Your task to perform on an android device: install app "DoorDash - Dasher" Image 0: 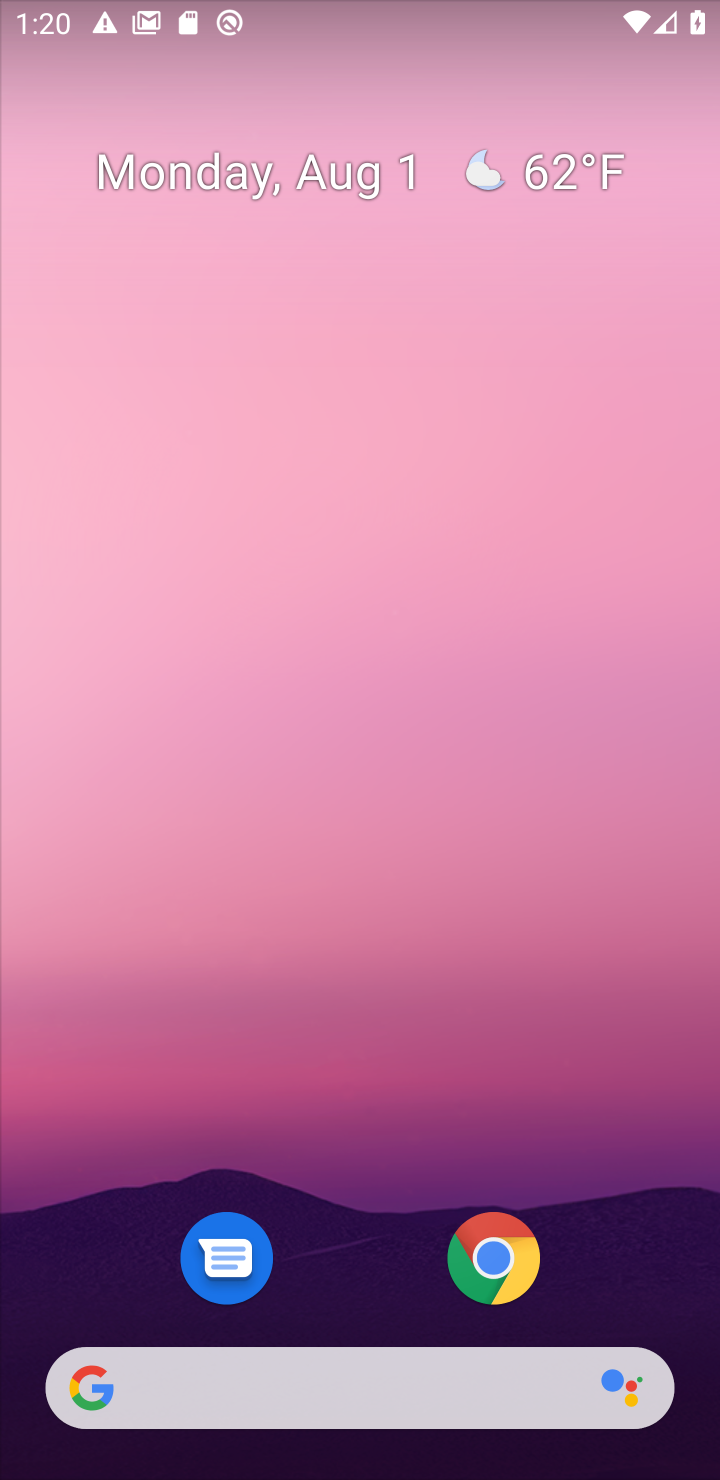
Step 0: drag from (183, 1031) to (396, 14)
Your task to perform on an android device: install app "DoorDash - Dasher" Image 1: 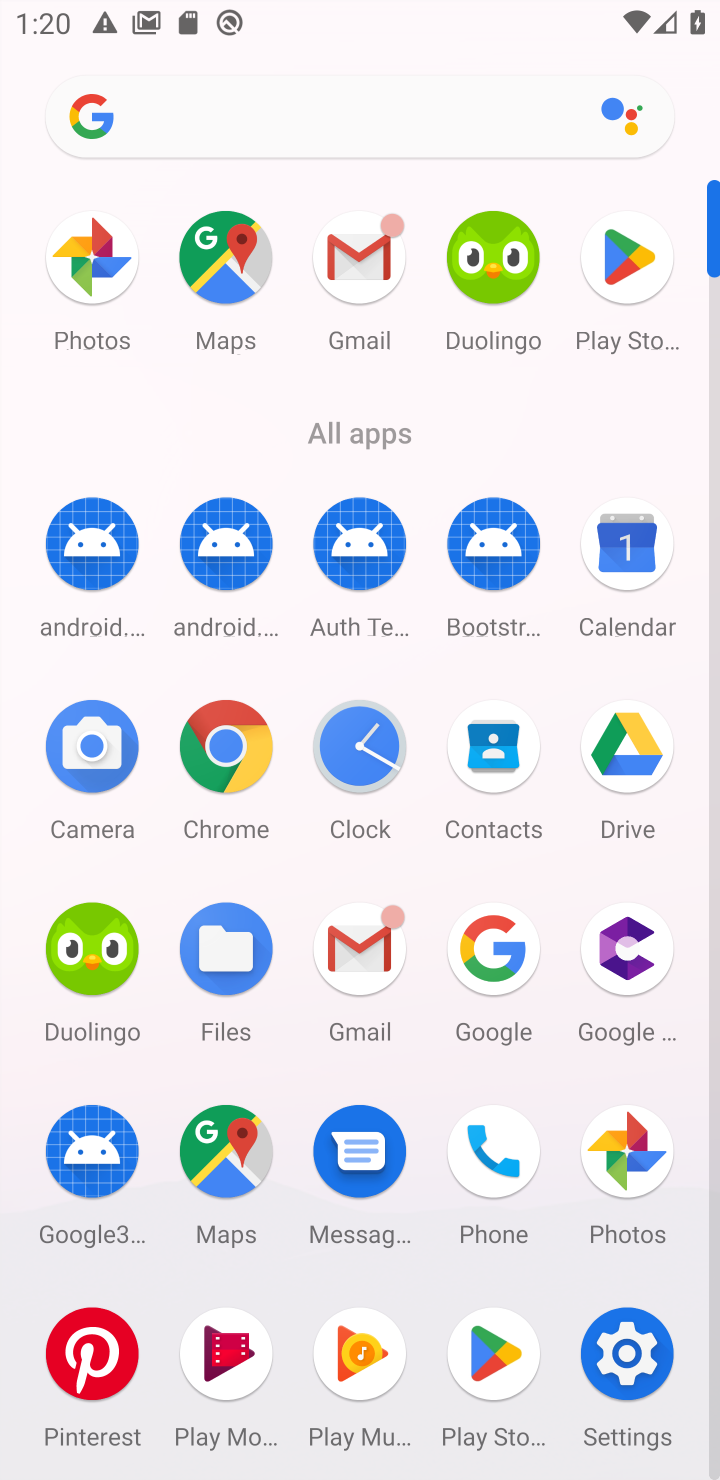
Step 1: click (621, 253)
Your task to perform on an android device: install app "DoorDash - Dasher" Image 2: 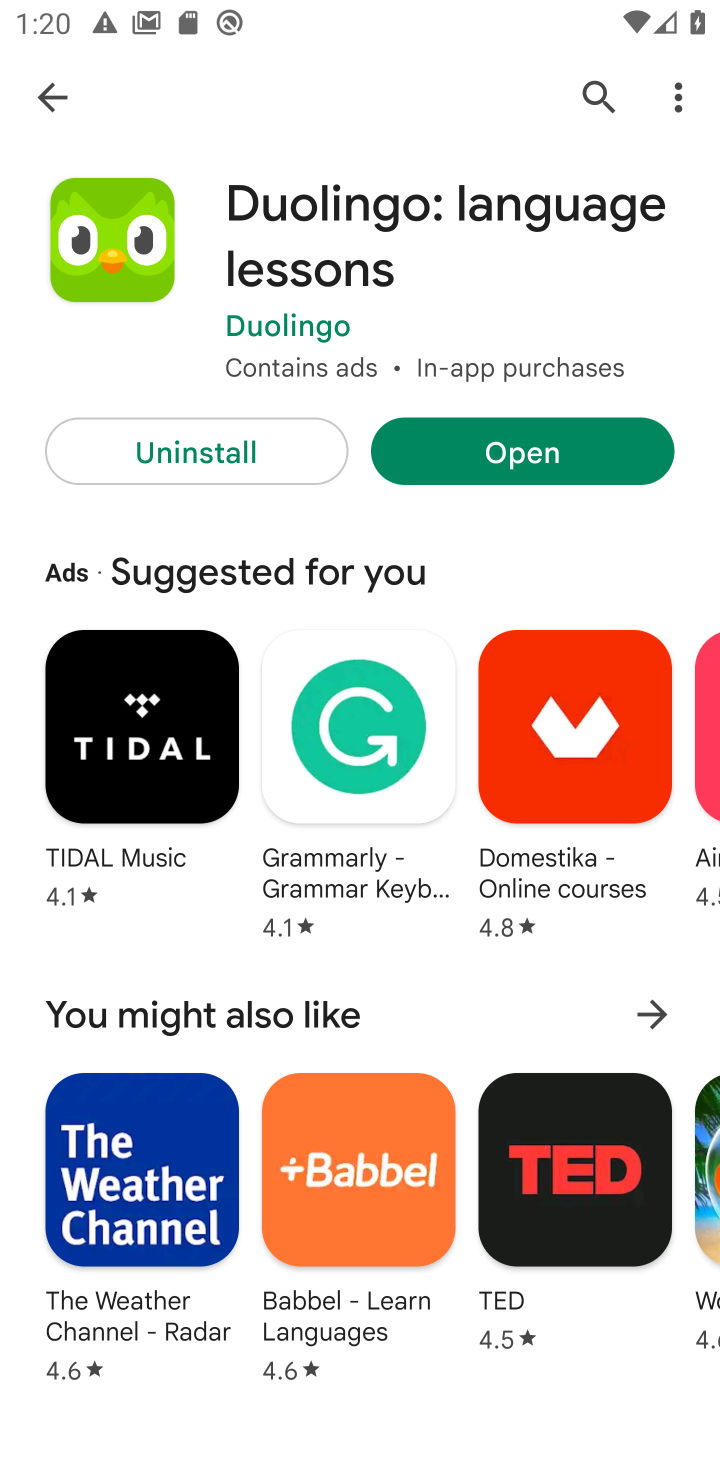
Step 2: click (603, 112)
Your task to perform on an android device: install app "DoorDash - Dasher" Image 3: 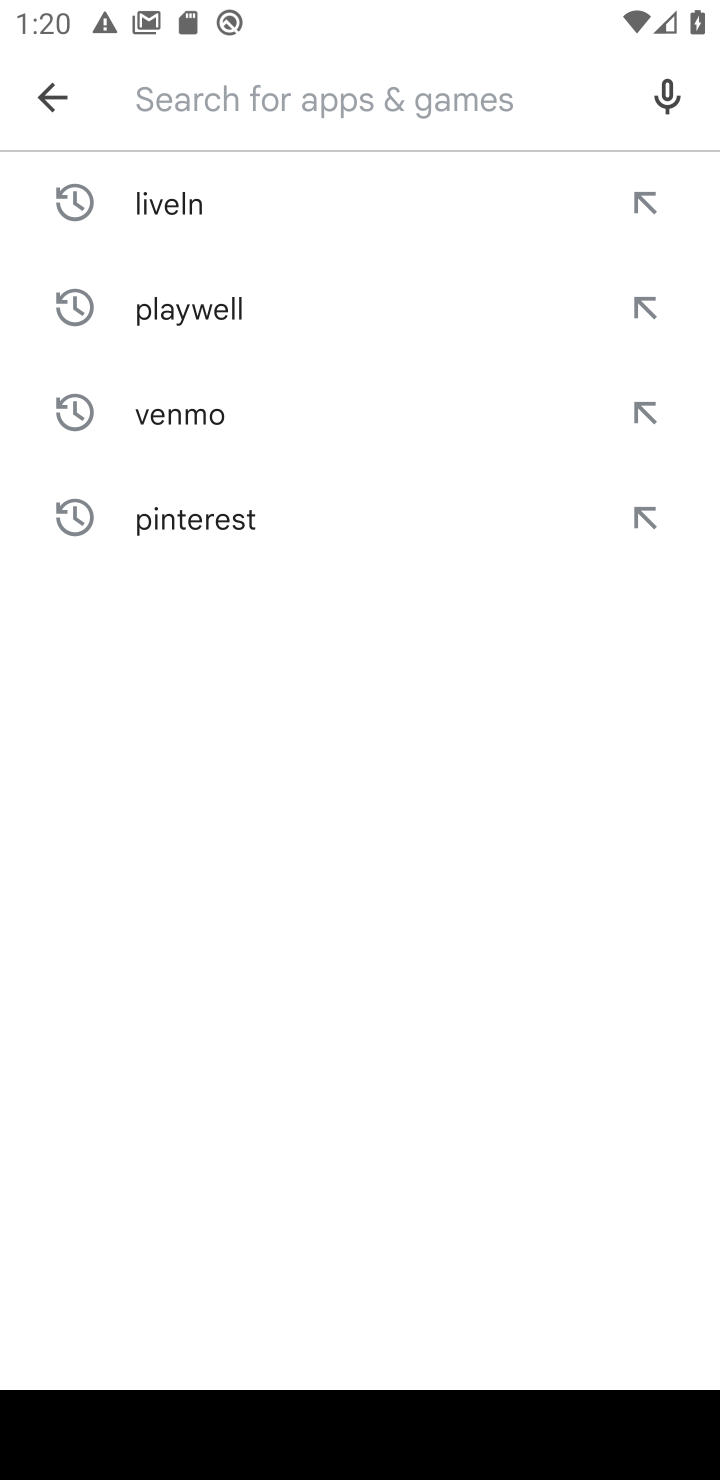
Step 3: click (285, 68)
Your task to perform on an android device: install app "DoorDash - Dasher" Image 4: 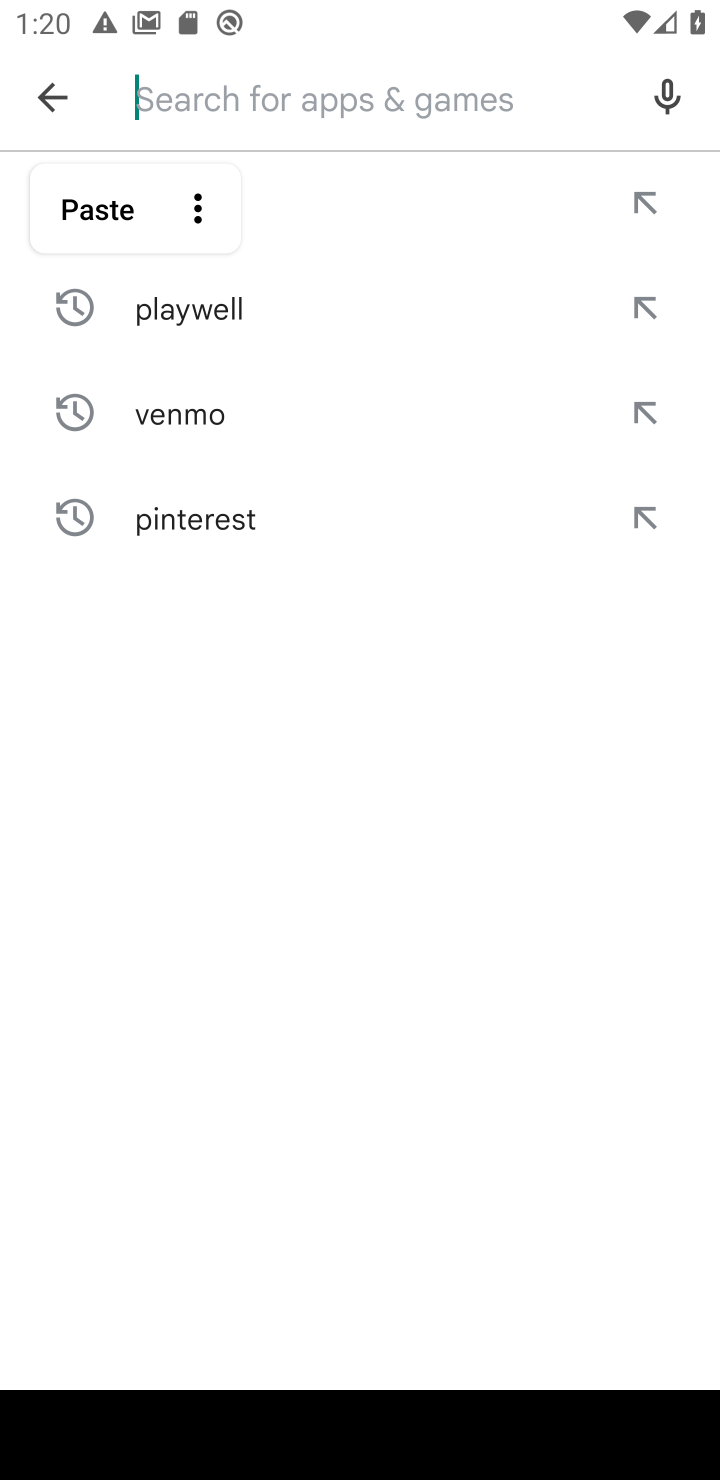
Step 4: type "DoorDash - Dasher"
Your task to perform on an android device: install app "DoorDash - Dasher" Image 5: 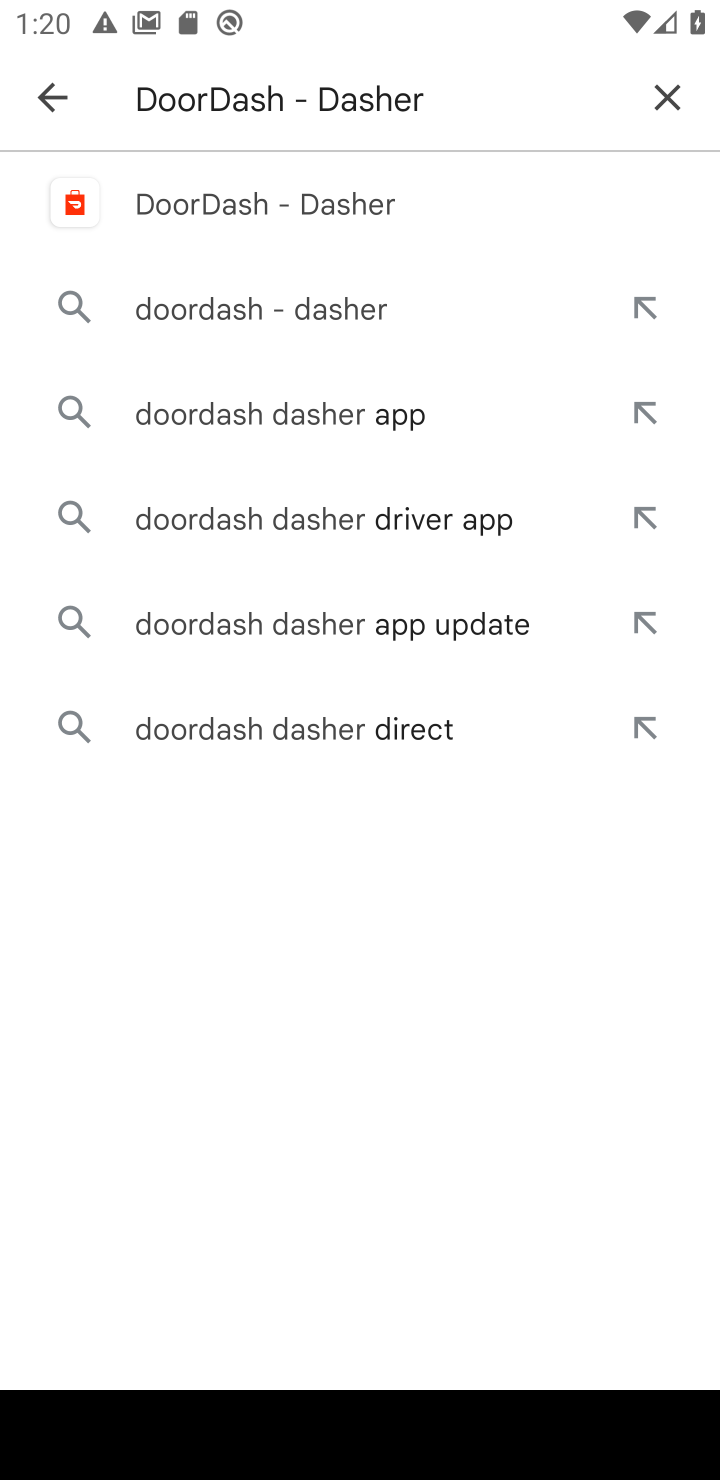
Step 5: click (245, 203)
Your task to perform on an android device: install app "DoorDash - Dasher" Image 6: 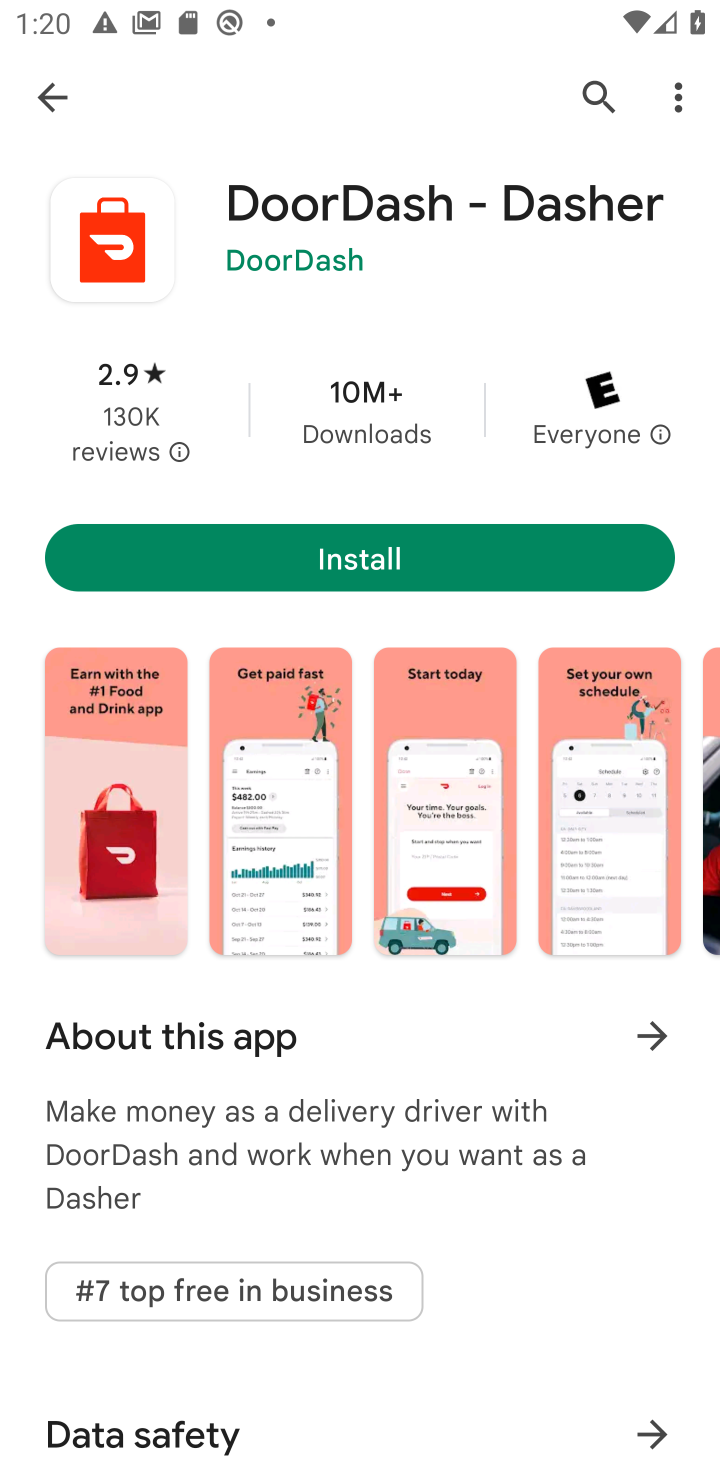
Step 6: click (330, 565)
Your task to perform on an android device: install app "DoorDash - Dasher" Image 7: 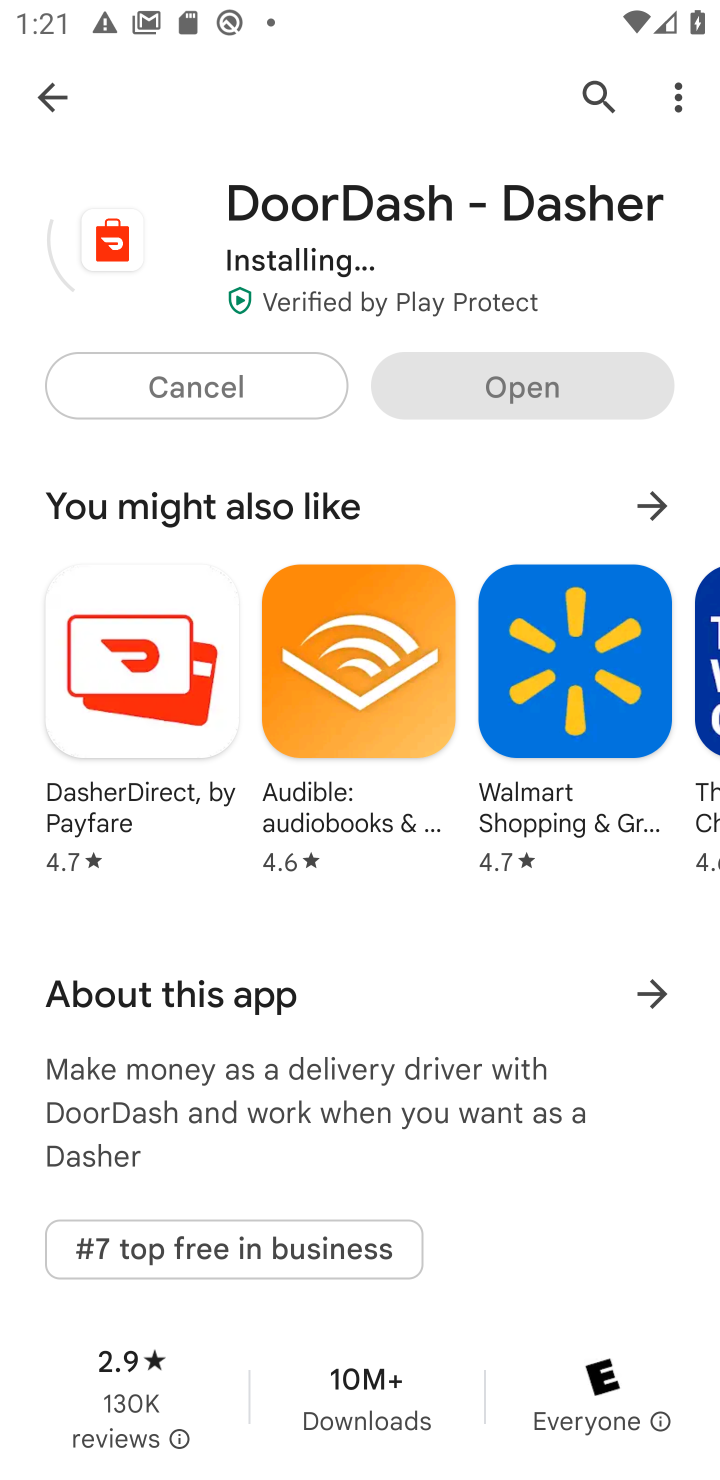
Step 7: click (60, 77)
Your task to perform on an android device: install app "DoorDash - Dasher" Image 8: 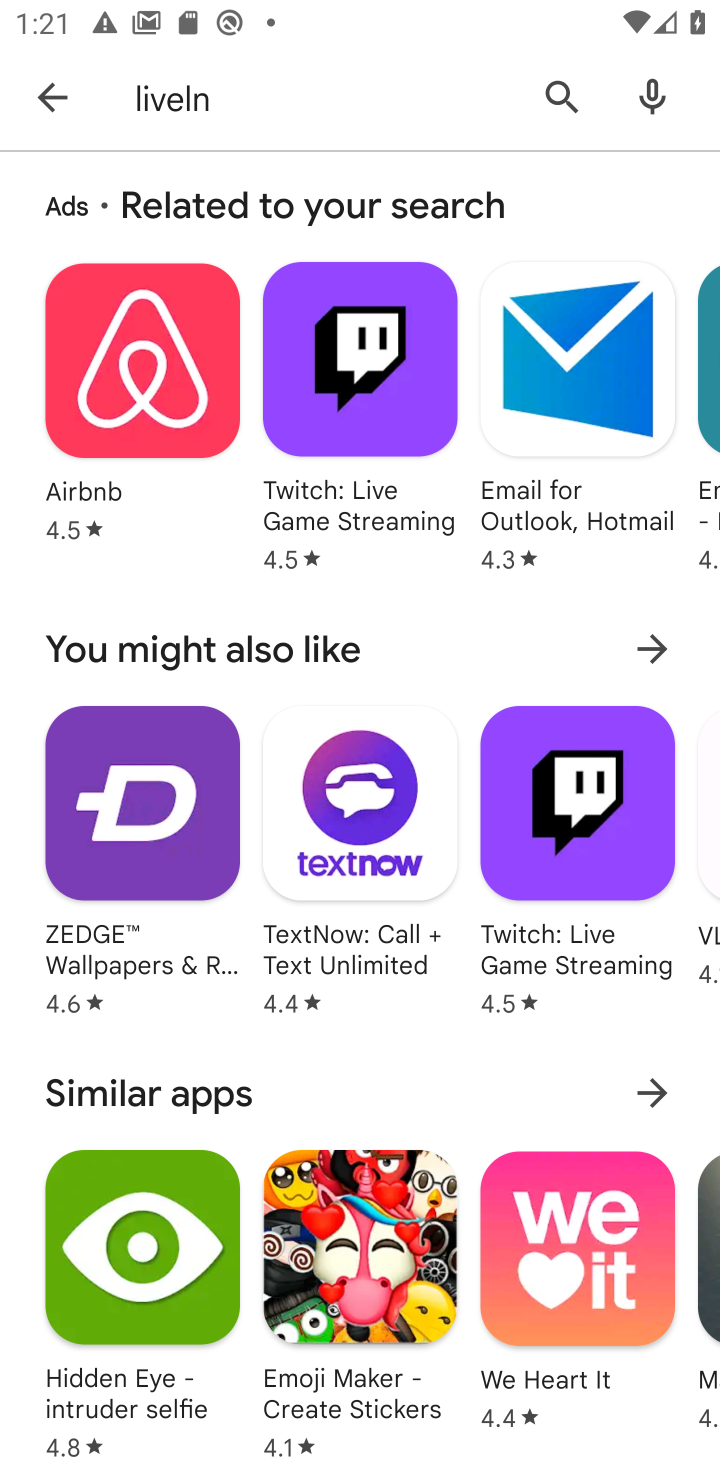
Step 8: click (555, 80)
Your task to perform on an android device: install app "DoorDash - Dasher" Image 9: 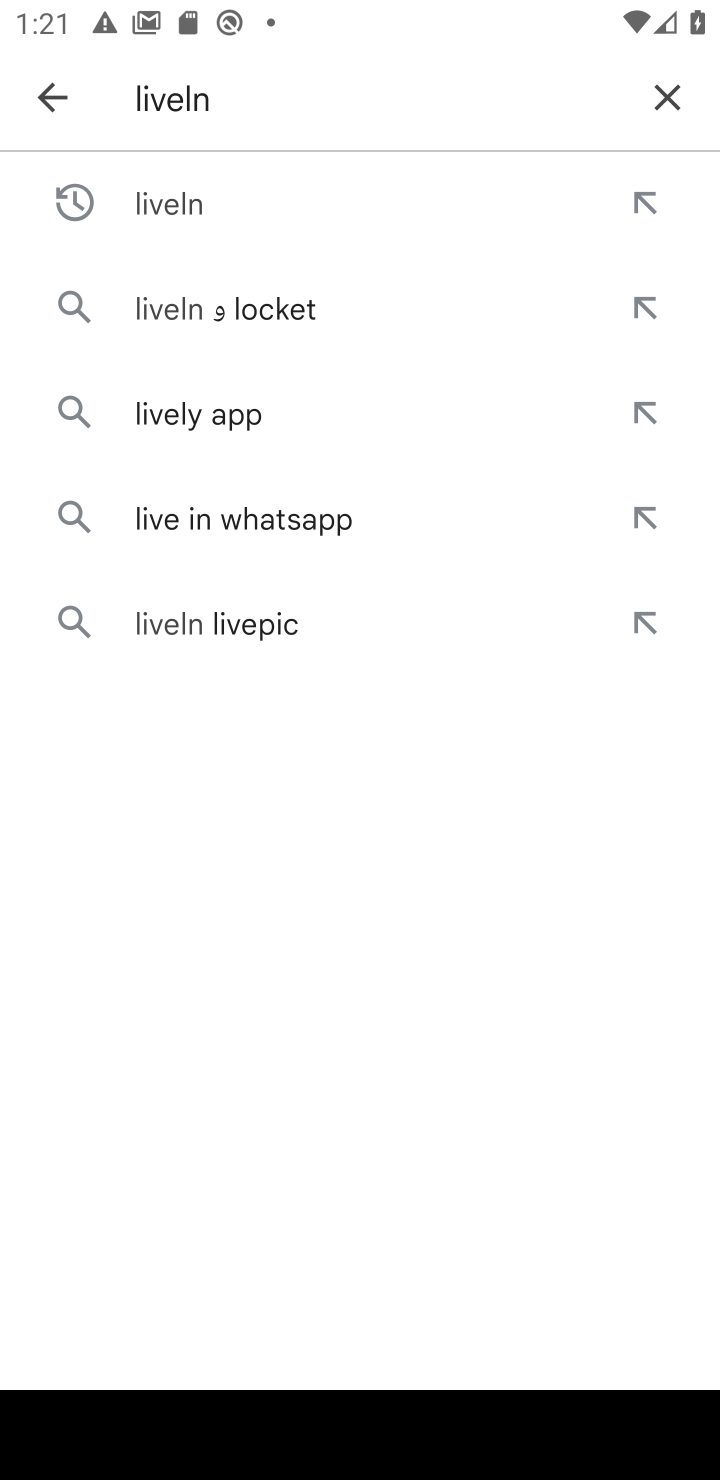
Step 9: click (670, 74)
Your task to perform on an android device: install app "DoorDash - Dasher" Image 10: 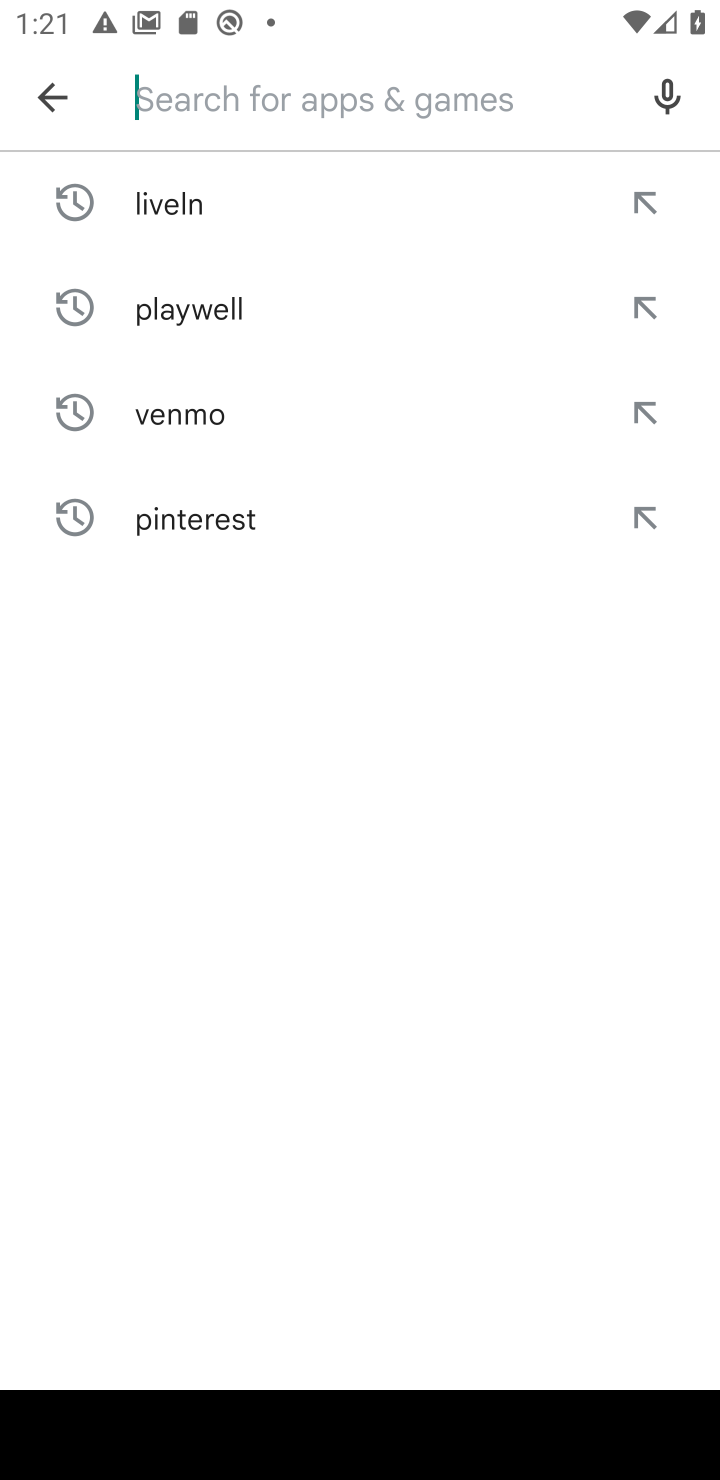
Step 10: click (244, 87)
Your task to perform on an android device: install app "DoorDash - Dasher" Image 11: 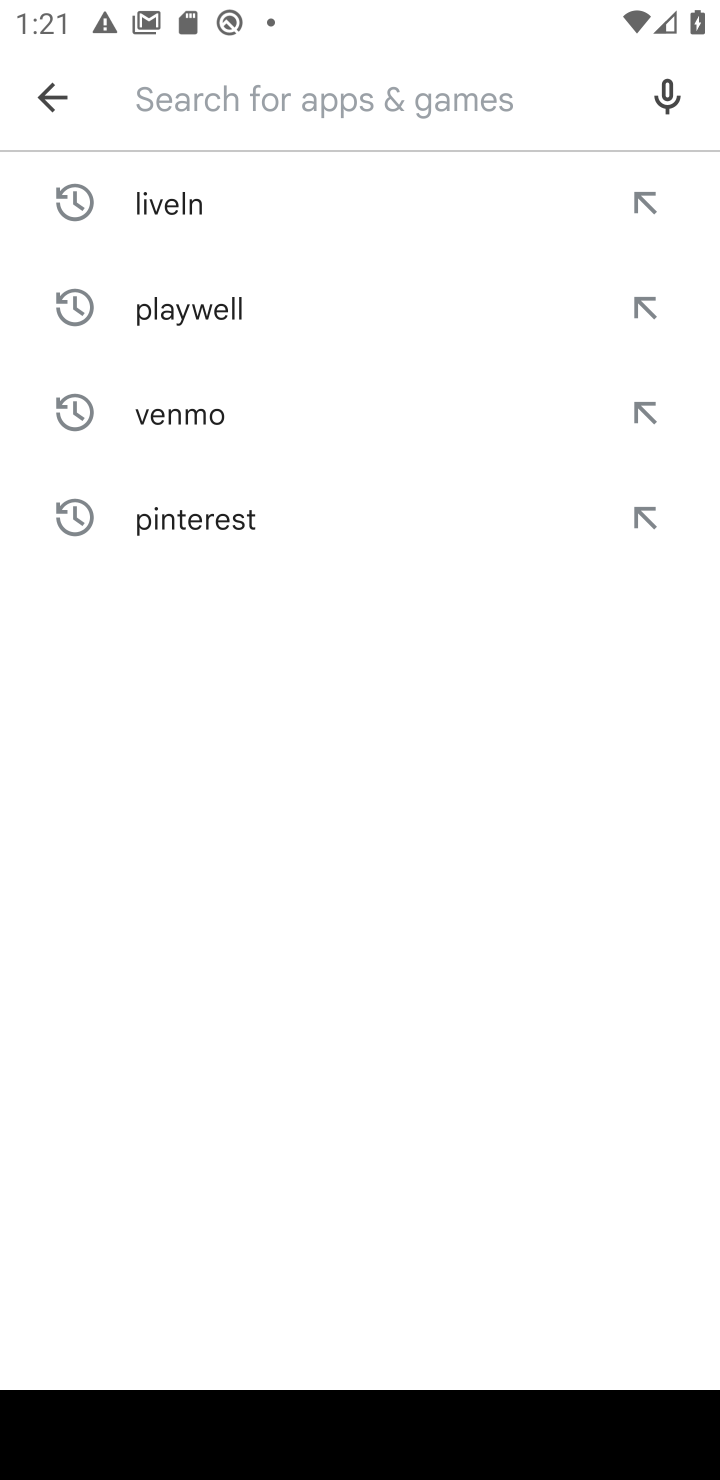
Step 11: type "doordash"
Your task to perform on an android device: install app "DoorDash - Dasher" Image 12: 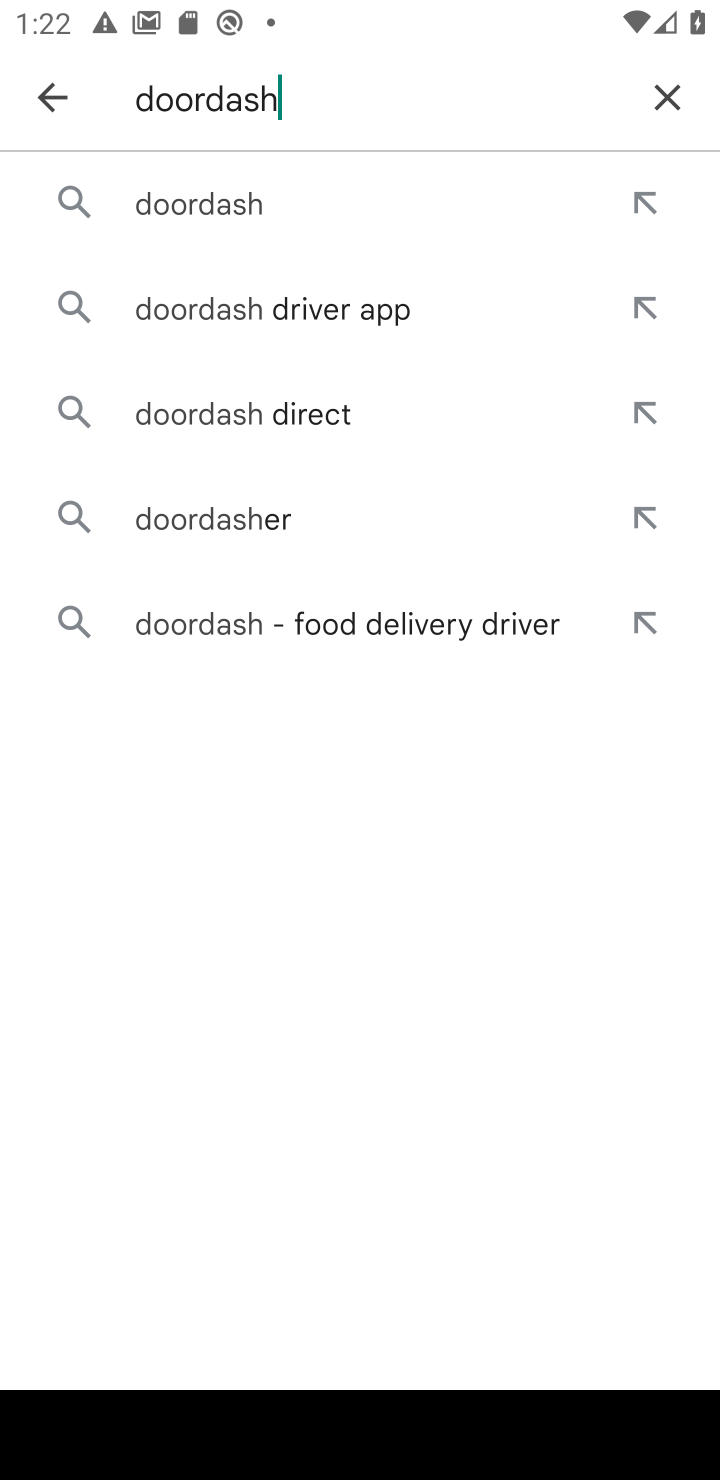
Step 12: click (266, 206)
Your task to perform on an android device: install app "DoorDash - Dasher" Image 13: 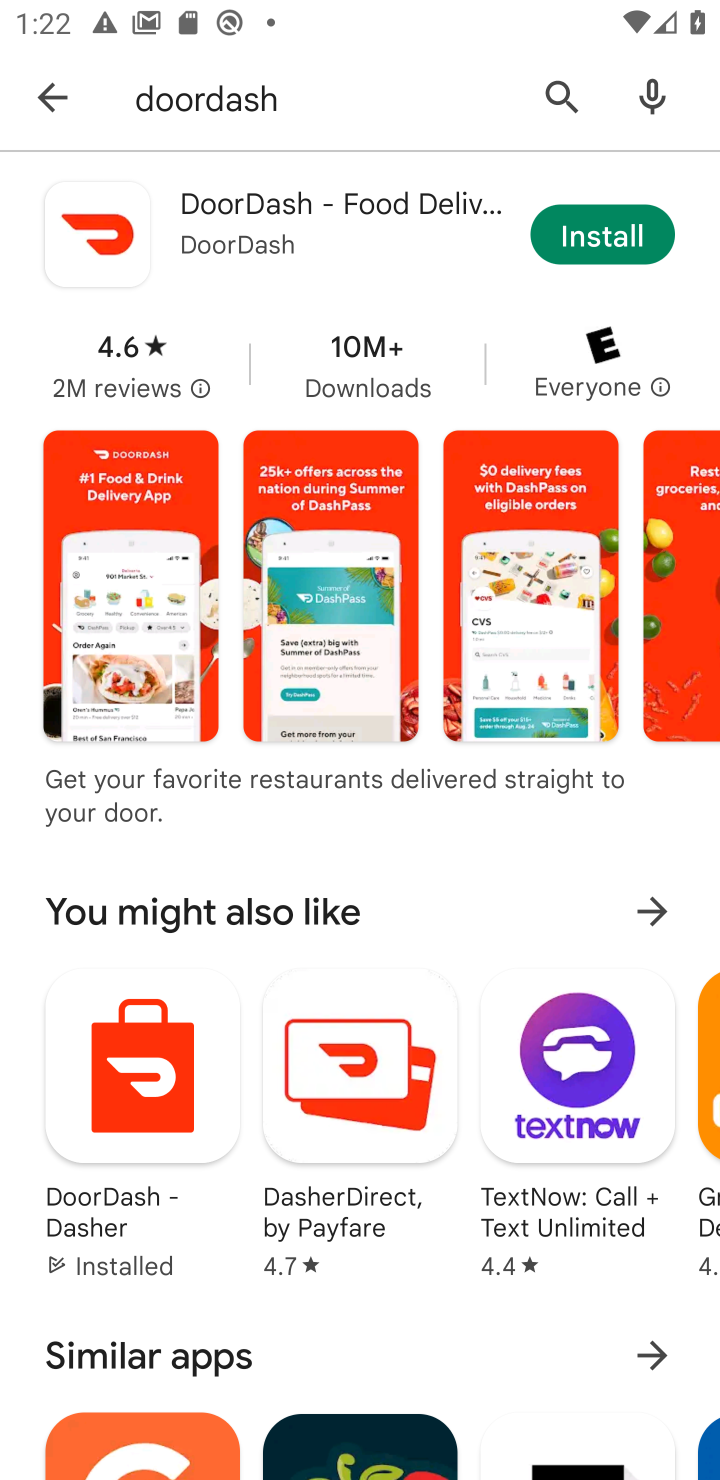
Step 13: drag from (200, 1291) to (290, 1061)
Your task to perform on an android device: install app "DoorDash - Dasher" Image 14: 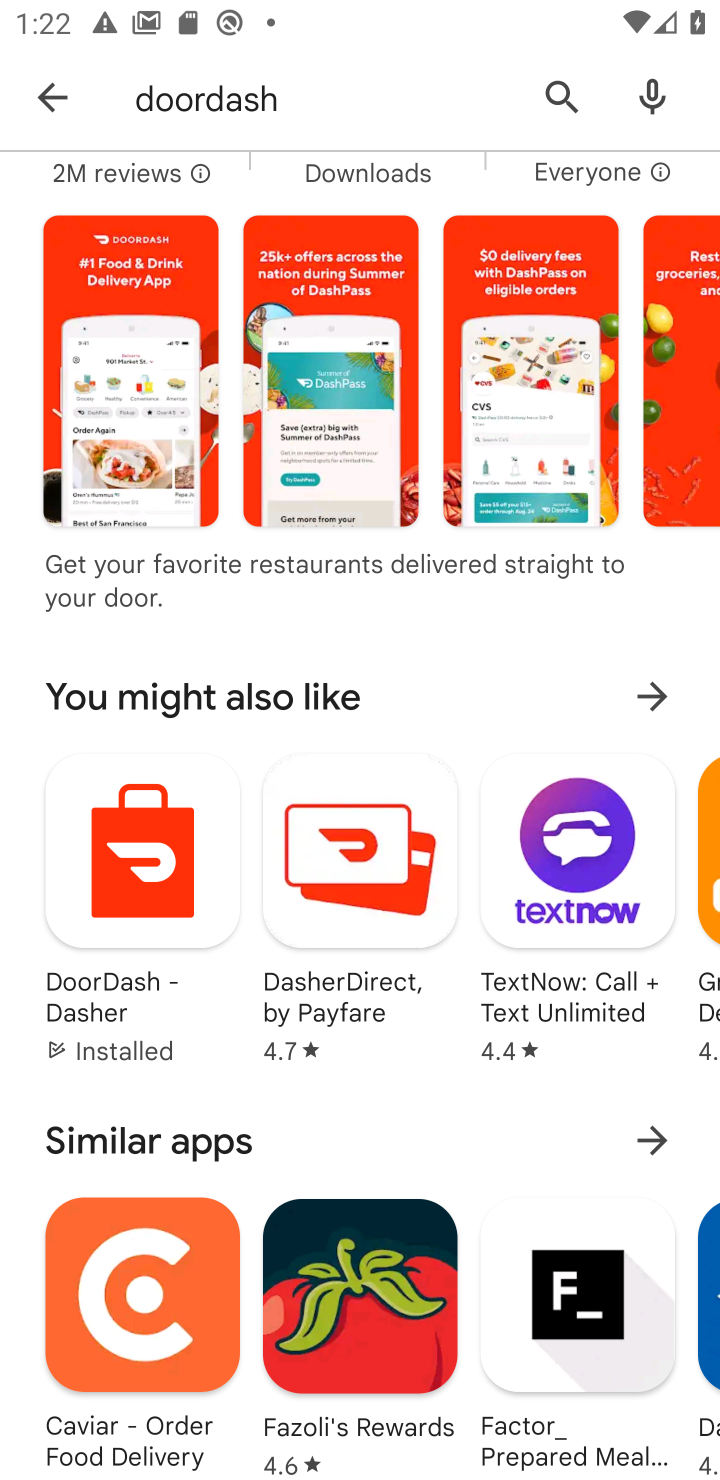
Step 14: click (121, 913)
Your task to perform on an android device: install app "DoorDash - Dasher" Image 15: 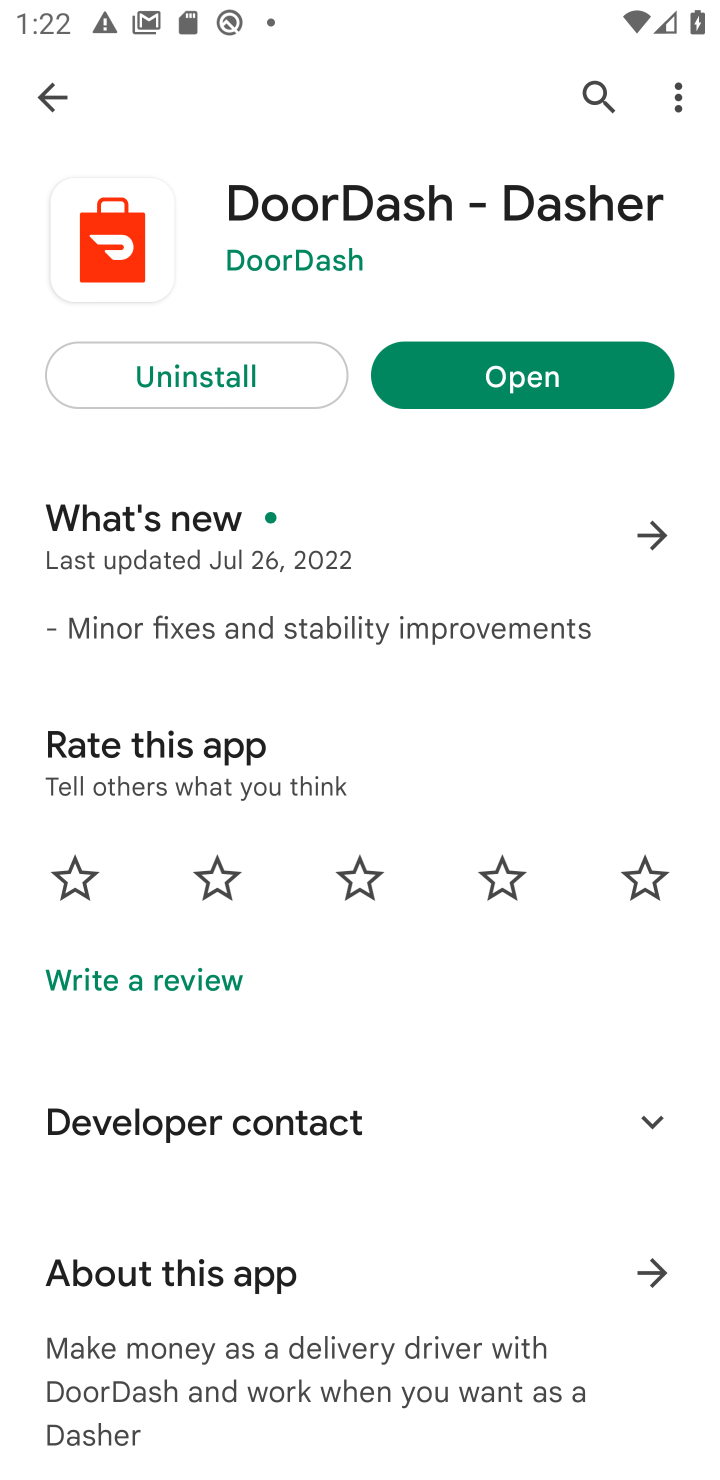
Step 15: task complete